Your task to perform on an android device: Open settings Image 0: 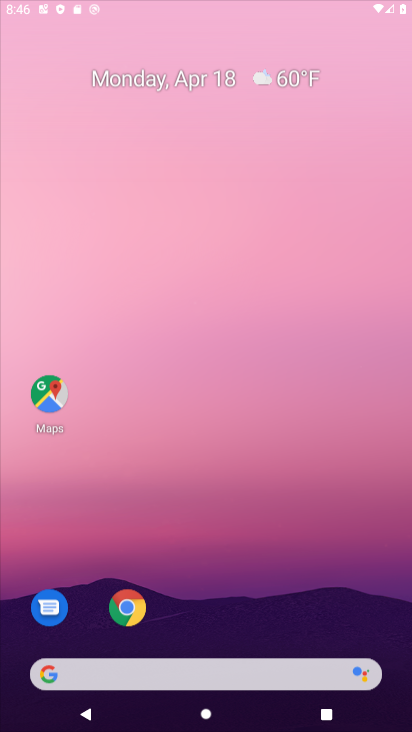
Step 0: click (224, 355)
Your task to perform on an android device: Open settings Image 1: 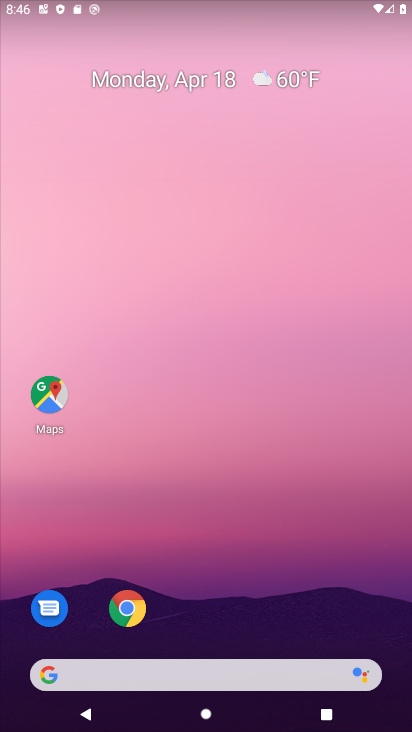
Step 1: drag from (150, 630) to (212, 215)
Your task to perform on an android device: Open settings Image 2: 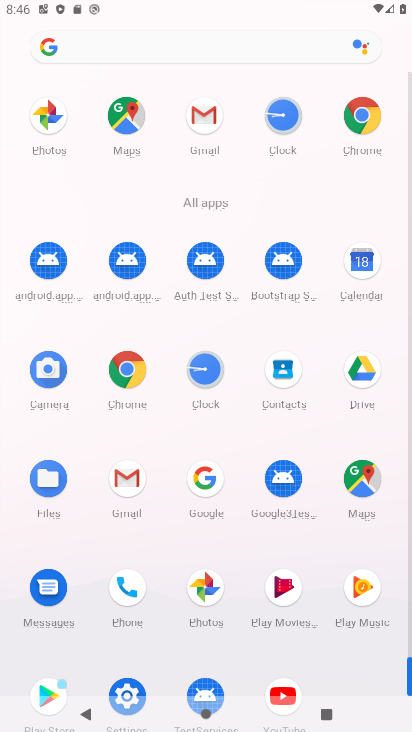
Step 2: drag from (190, 552) to (229, 324)
Your task to perform on an android device: Open settings Image 3: 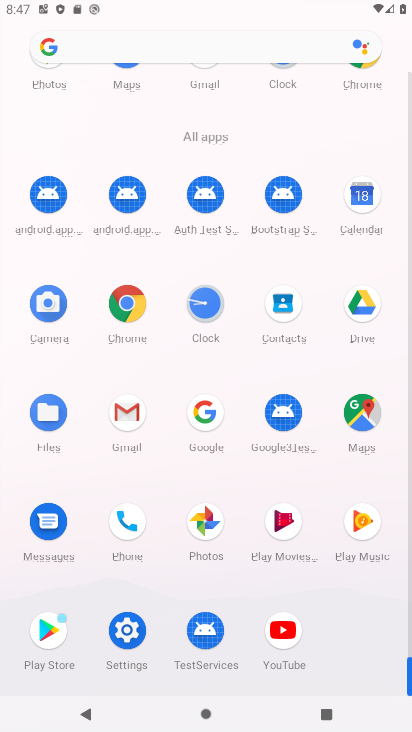
Step 3: drag from (341, 592) to (400, 289)
Your task to perform on an android device: Open settings Image 4: 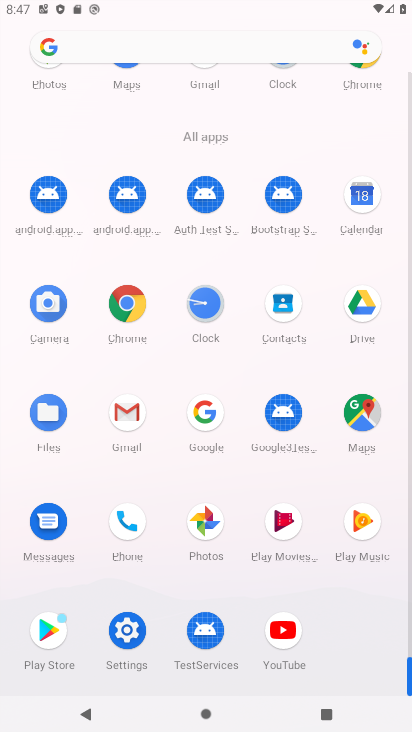
Step 4: click (120, 630)
Your task to perform on an android device: Open settings Image 5: 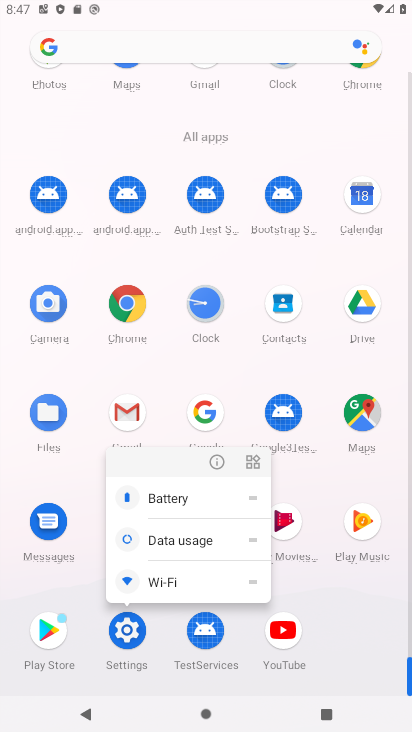
Step 5: click (227, 463)
Your task to perform on an android device: Open settings Image 6: 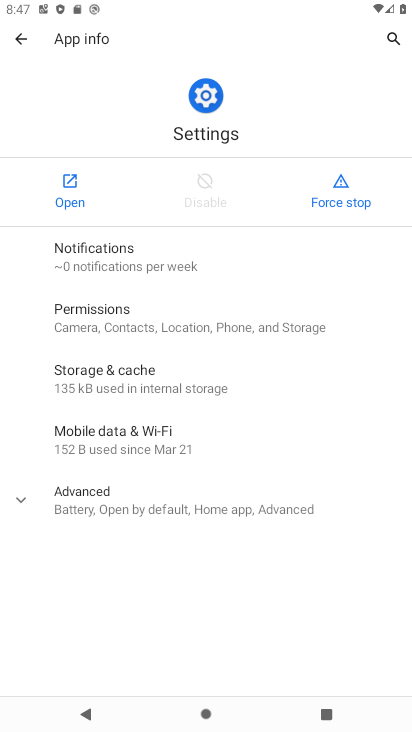
Step 6: drag from (119, 457) to (271, 273)
Your task to perform on an android device: Open settings Image 7: 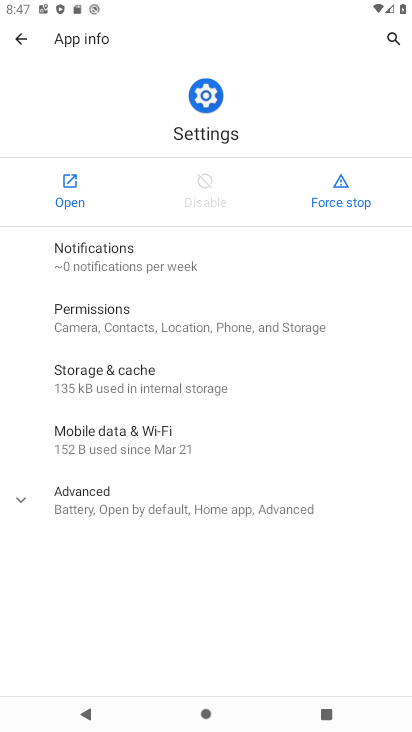
Step 7: click (62, 191)
Your task to perform on an android device: Open settings Image 8: 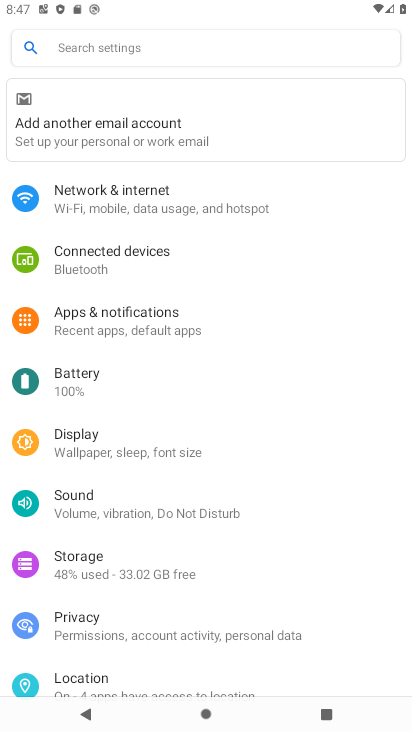
Step 8: task complete